Your task to perform on an android device: Clear the cart on walmart. Add usb-b to the cart on walmart Image 0: 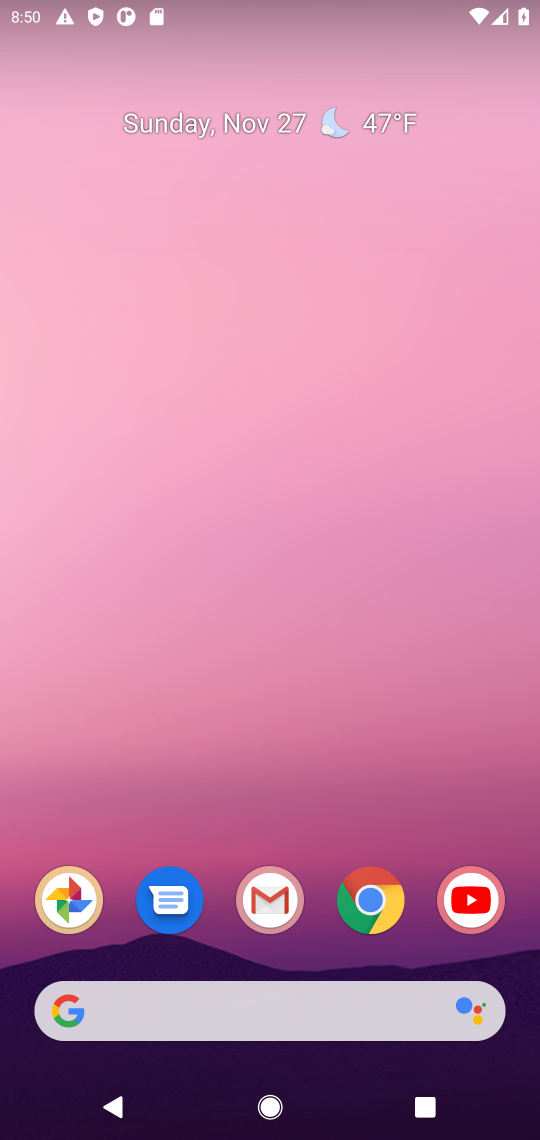
Step 0: click (374, 903)
Your task to perform on an android device: Clear the cart on walmart. Add usb-b to the cart on walmart Image 1: 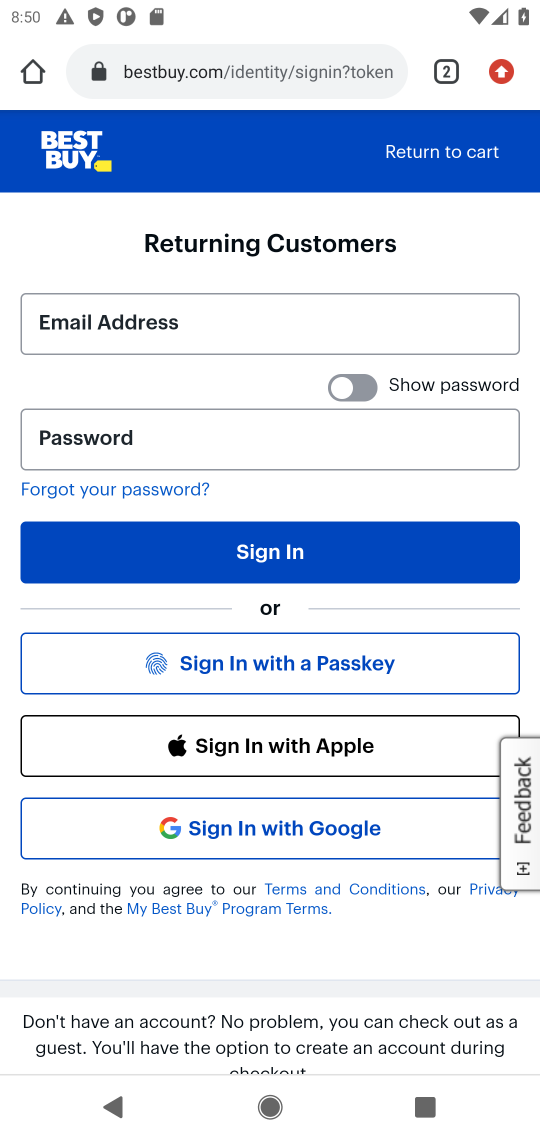
Step 1: press back button
Your task to perform on an android device: Clear the cart on walmart. Add usb-b to the cart on walmart Image 2: 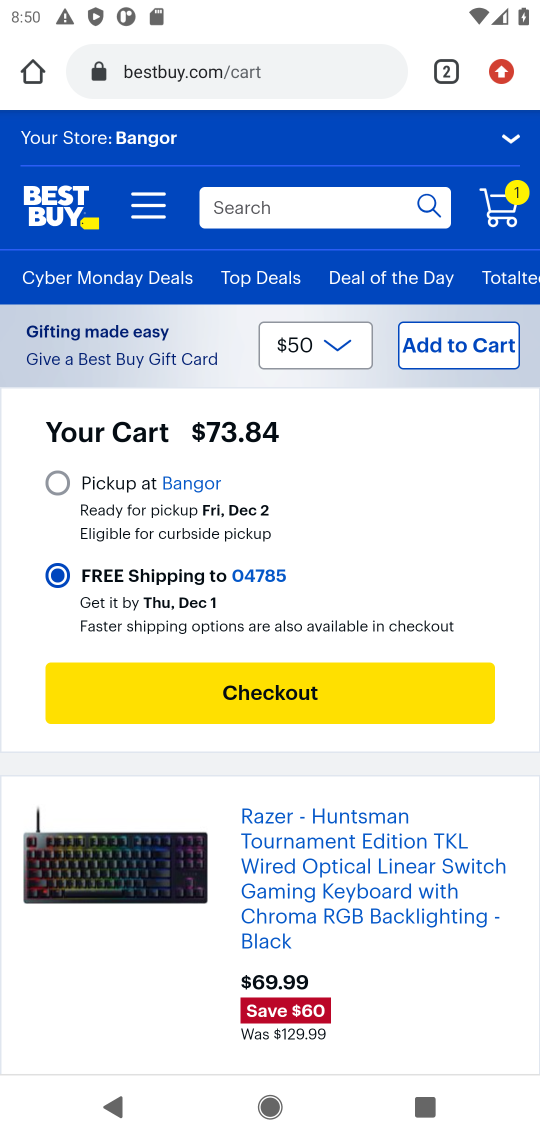
Step 2: click (249, 73)
Your task to perform on an android device: Clear the cart on walmart. Add usb-b to the cart on walmart Image 3: 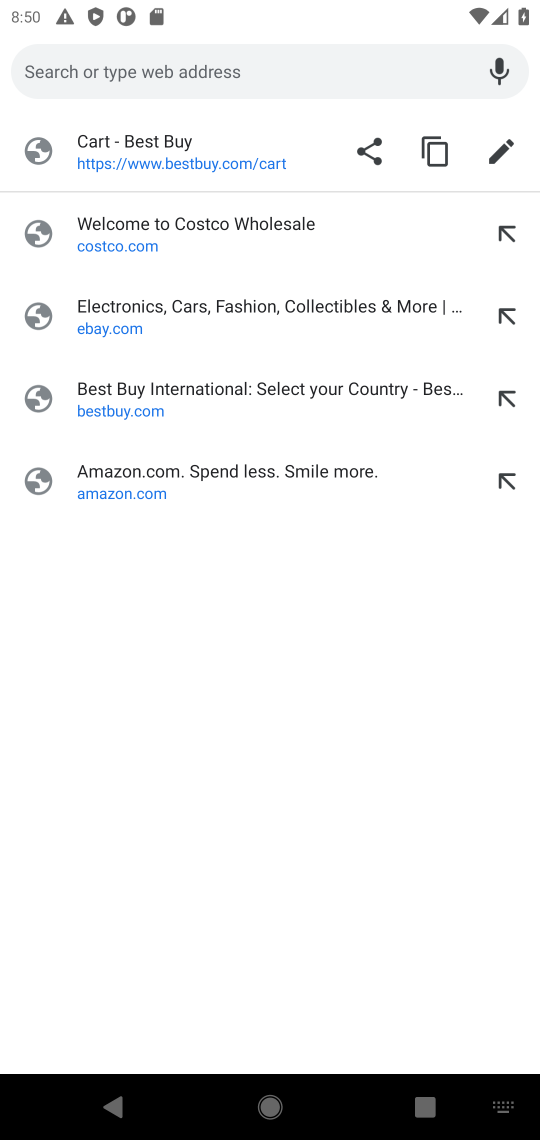
Step 3: type "walmart.com"
Your task to perform on an android device: Clear the cart on walmart. Add usb-b to the cart on walmart Image 4: 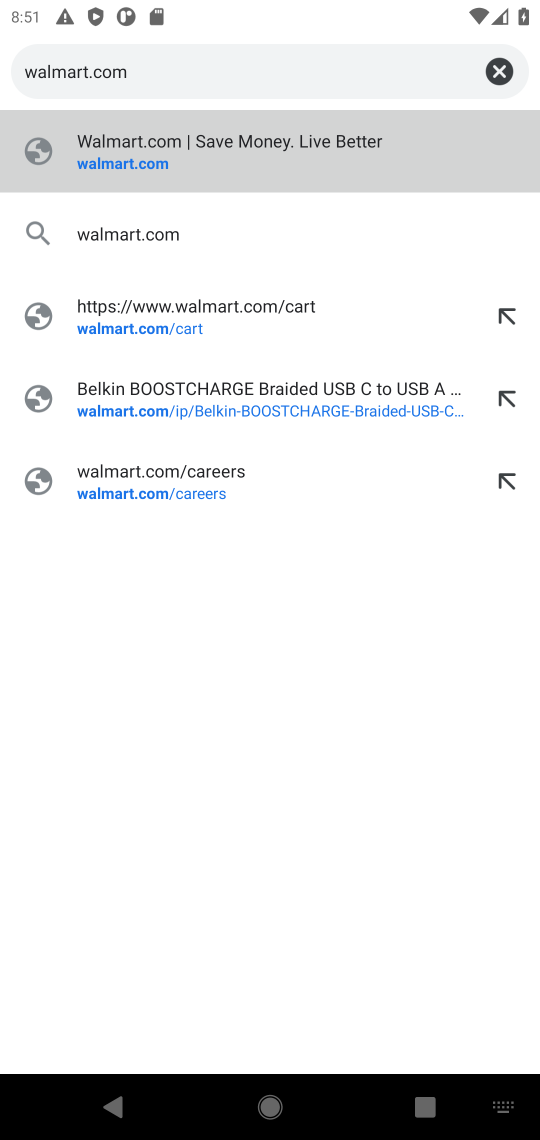
Step 4: click (141, 156)
Your task to perform on an android device: Clear the cart on walmart. Add usb-b to the cart on walmart Image 5: 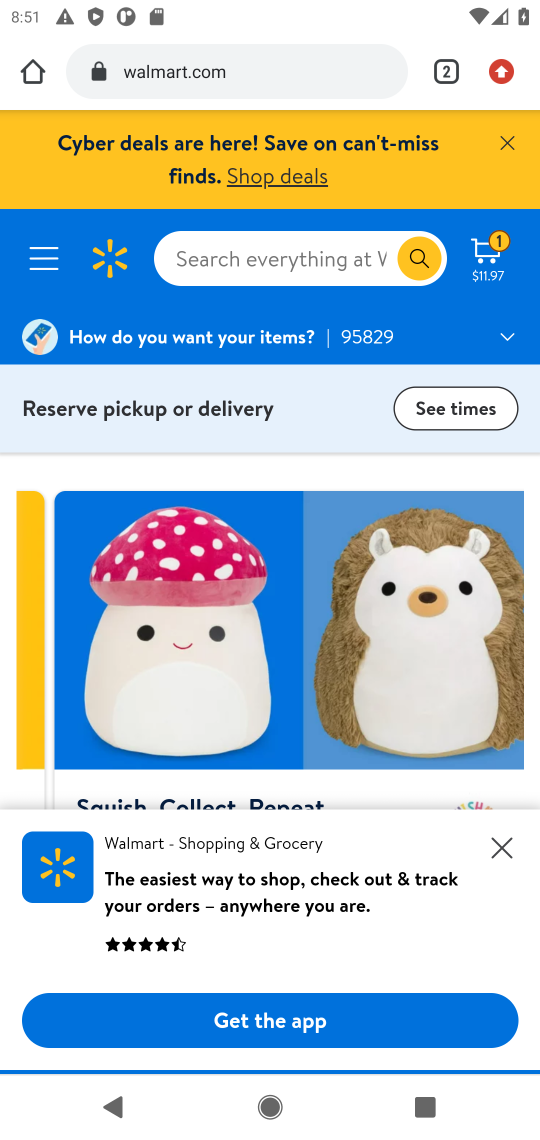
Step 5: click (226, 255)
Your task to perform on an android device: Clear the cart on walmart. Add usb-b to the cart on walmart Image 6: 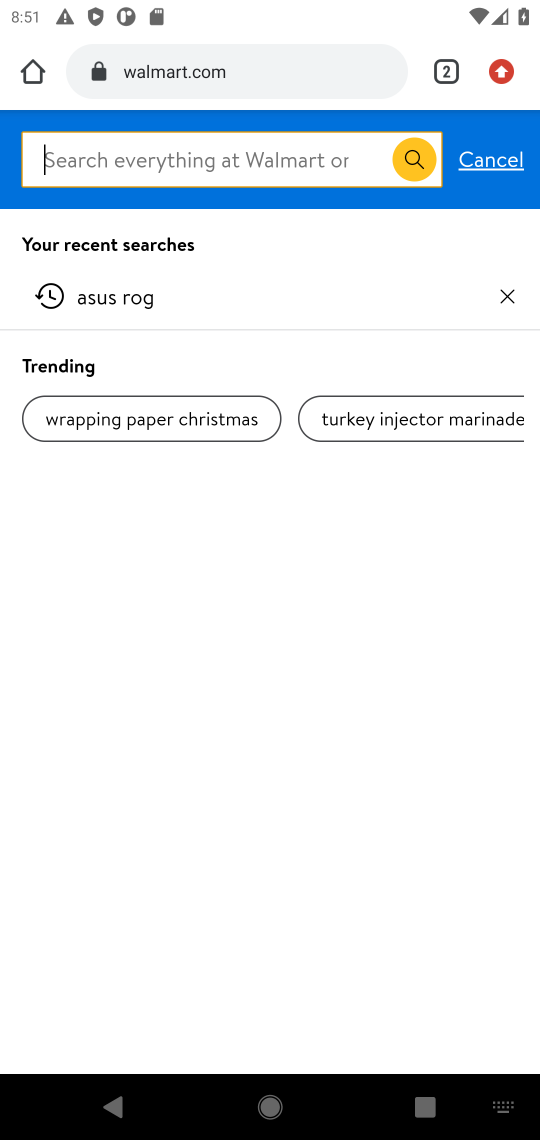
Step 6: click (487, 168)
Your task to perform on an android device: Clear the cart on walmart. Add usb-b to the cart on walmart Image 7: 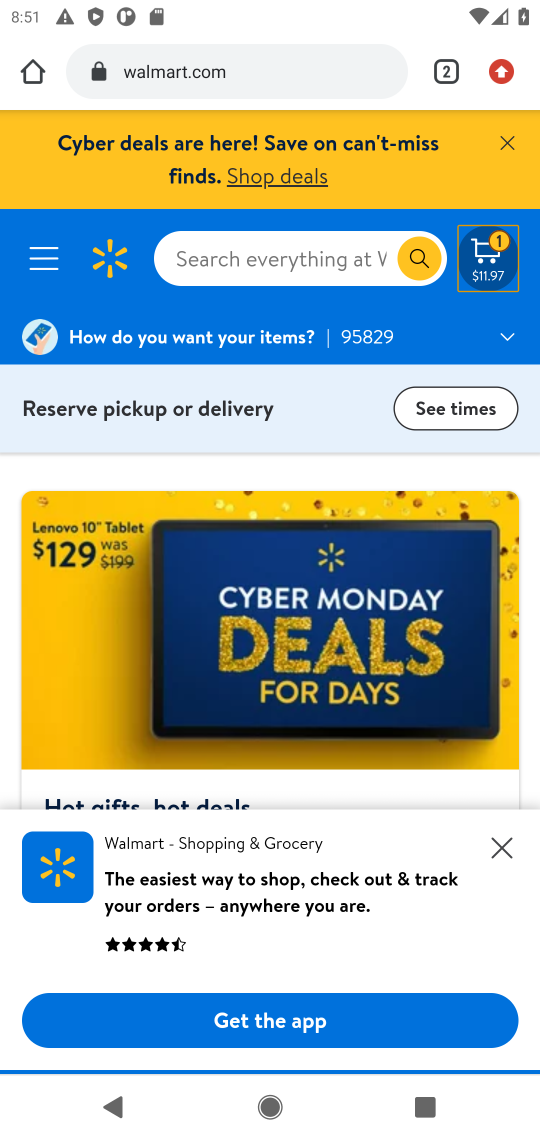
Step 7: click (489, 253)
Your task to perform on an android device: Clear the cart on walmart. Add usb-b to the cart on walmart Image 8: 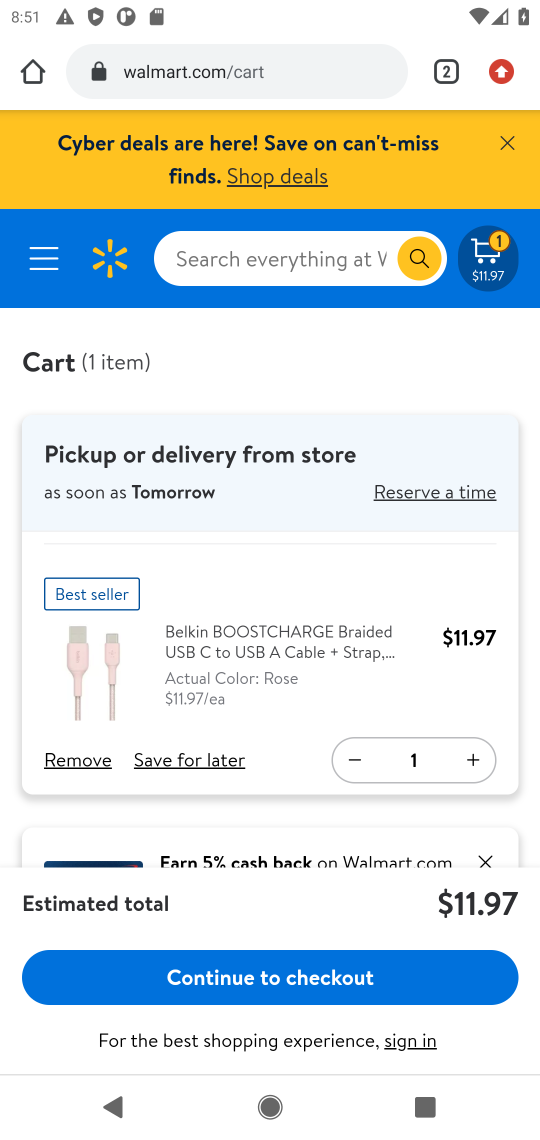
Step 8: click (65, 764)
Your task to perform on an android device: Clear the cart on walmart. Add usb-b to the cart on walmart Image 9: 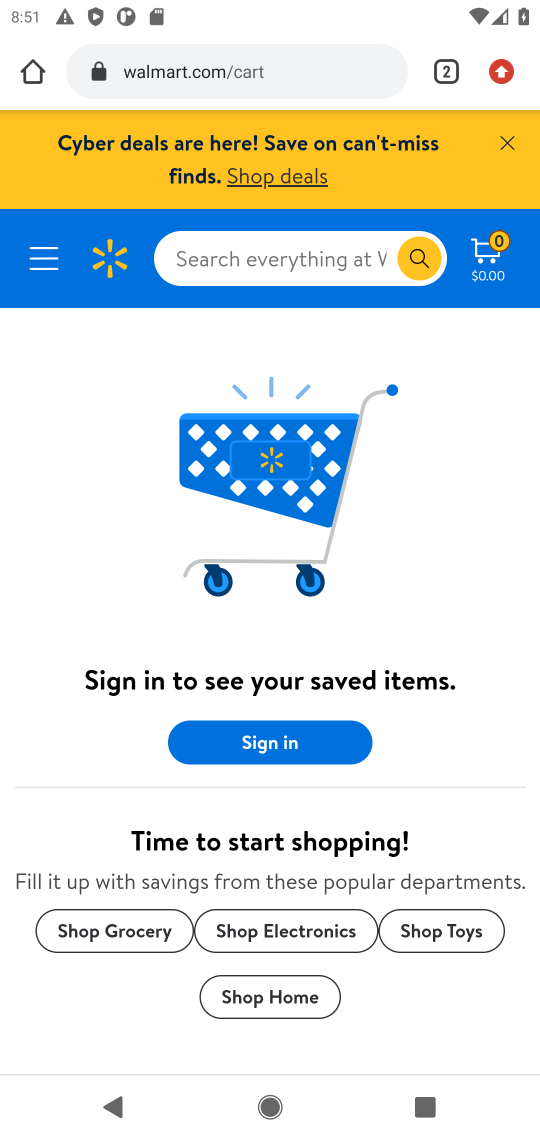
Step 9: click (274, 266)
Your task to perform on an android device: Clear the cart on walmart. Add usb-b to the cart on walmart Image 10: 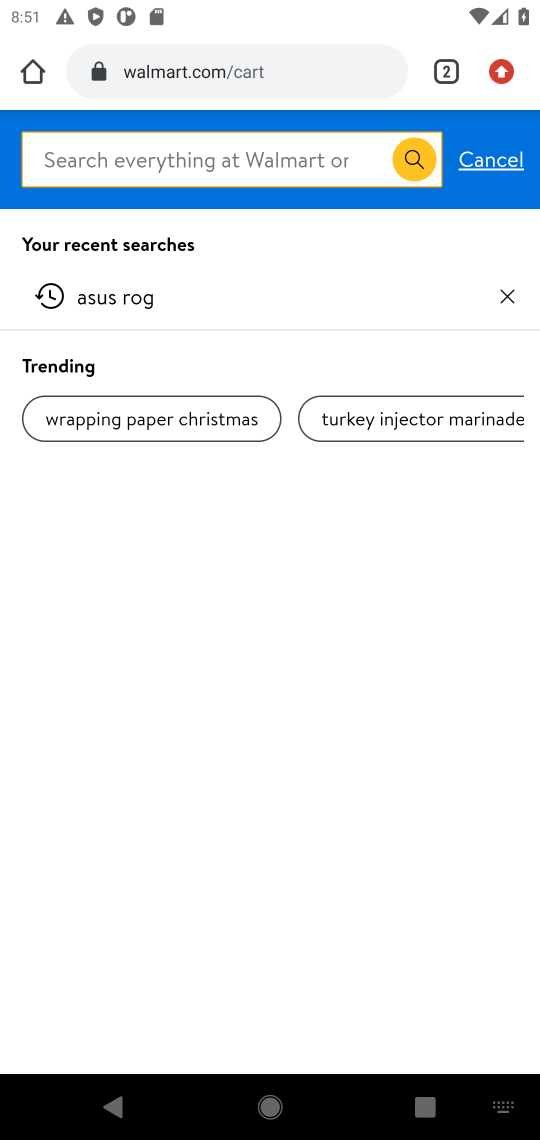
Step 10: type "usb-b"
Your task to perform on an android device: Clear the cart on walmart. Add usb-b to the cart on walmart Image 11: 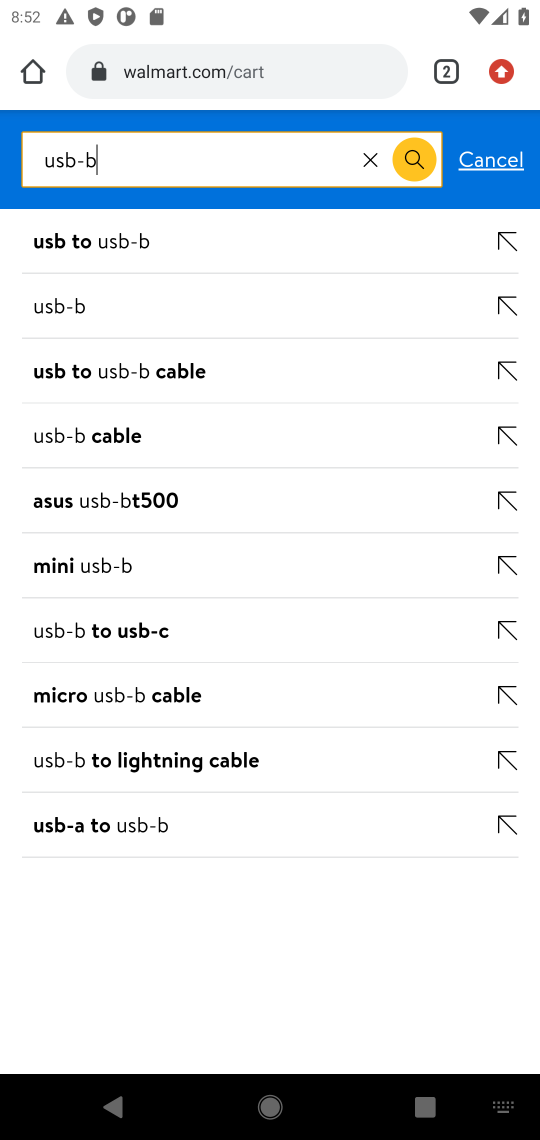
Step 11: click (55, 317)
Your task to perform on an android device: Clear the cart on walmart. Add usb-b to the cart on walmart Image 12: 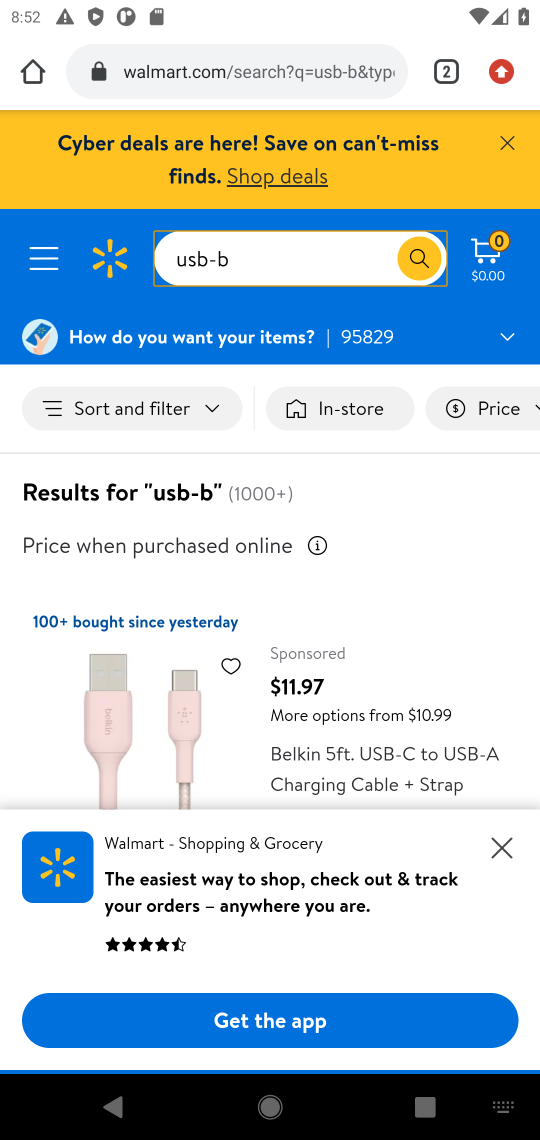
Step 12: drag from (273, 681) to (310, 390)
Your task to perform on an android device: Clear the cart on walmart. Add usb-b to the cart on walmart Image 13: 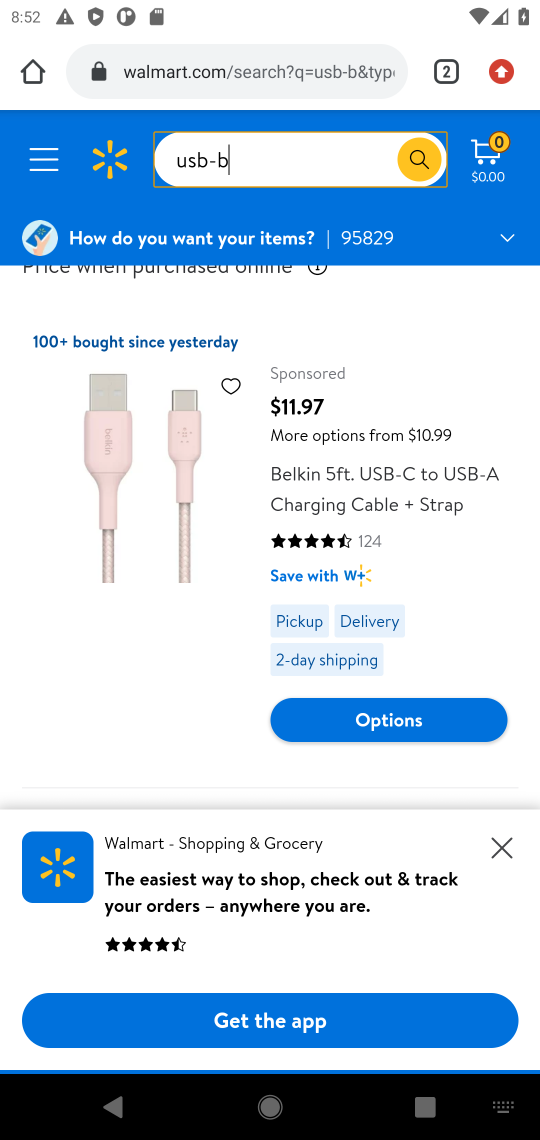
Step 13: drag from (148, 636) to (200, 268)
Your task to perform on an android device: Clear the cart on walmart. Add usb-b to the cart on walmart Image 14: 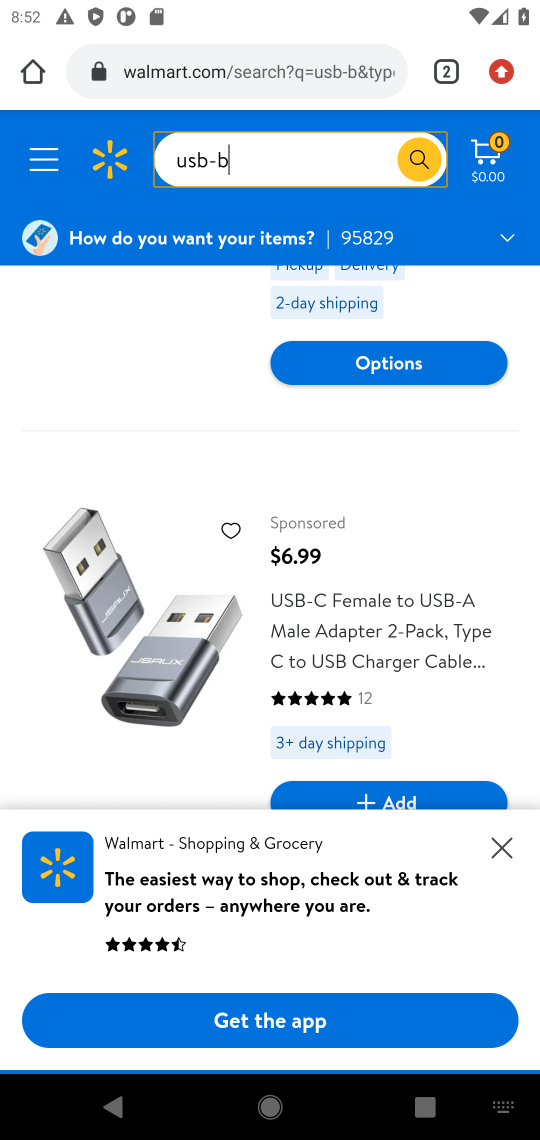
Step 14: drag from (146, 628) to (159, 389)
Your task to perform on an android device: Clear the cart on walmart. Add usb-b to the cart on walmart Image 15: 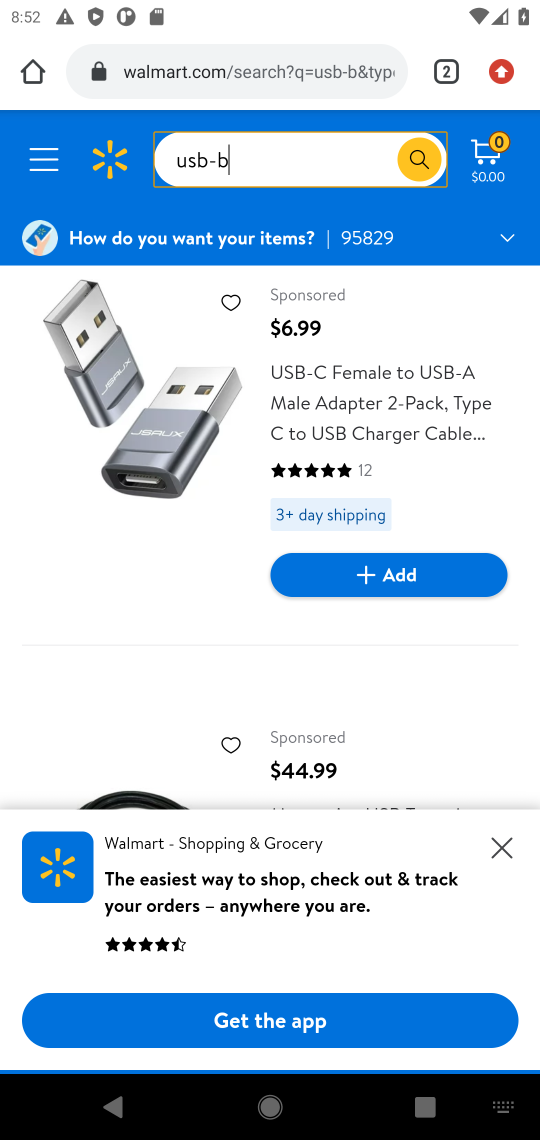
Step 15: drag from (148, 733) to (188, 371)
Your task to perform on an android device: Clear the cart on walmart. Add usb-b to the cart on walmart Image 16: 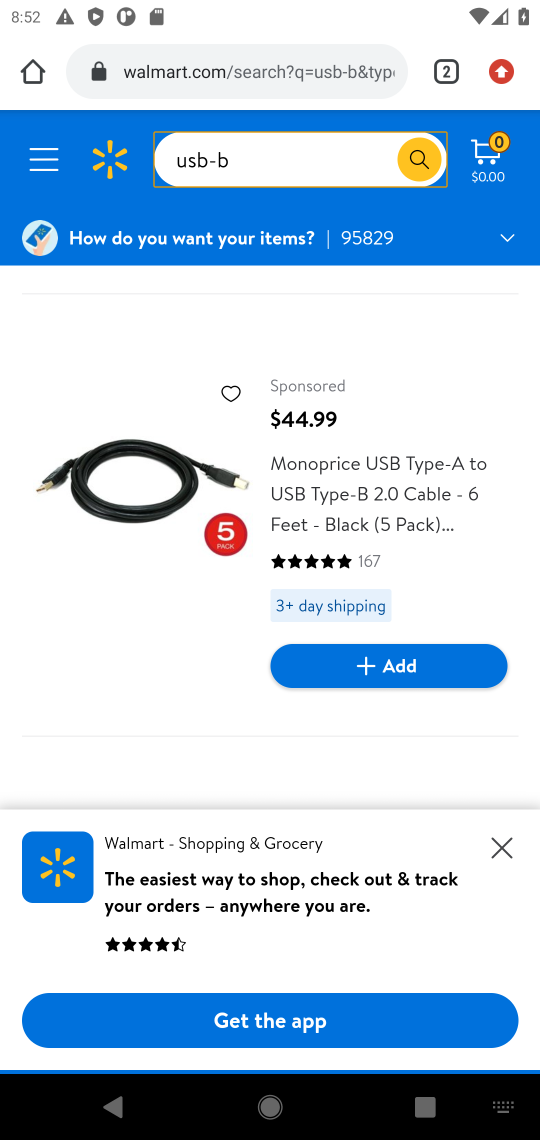
Step 16: click (386, 666)
Your task to perform on an android device: Clear the cart on walmart. Add usb-b to the cart on walmart Image 17: 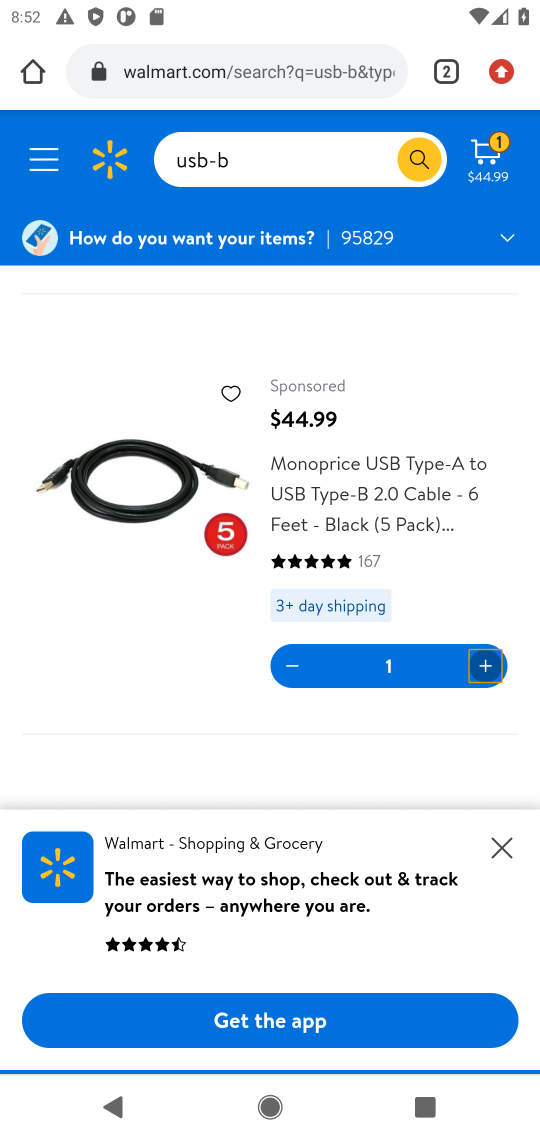
Step 17: task complete